Your task to perform on an android device: Go to internet settings Image 0: 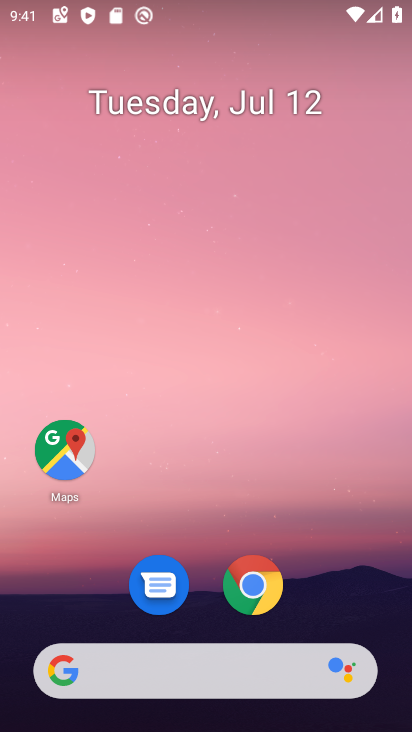
Step 0: drag from (166, 680) to (318, 108)
Your task to perform on an android device: Go to internet settings Image 1: 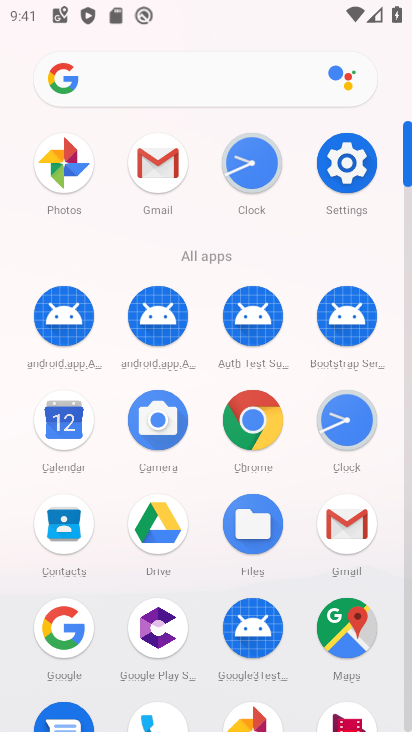
Step 1: click (336, 168)
Your task to perform on an android device: Go to internet settings Image 2: 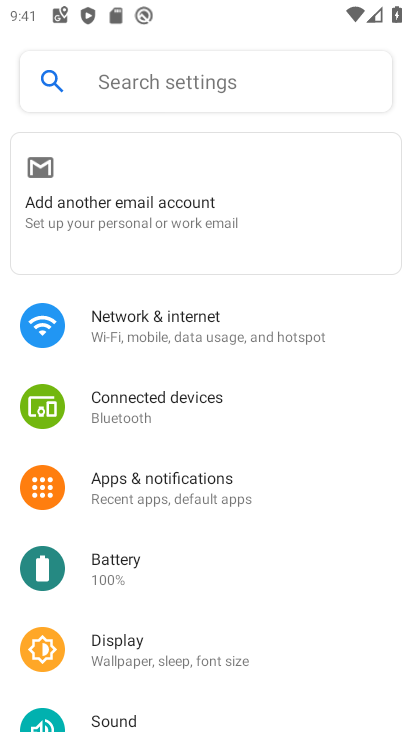
Step 2: click (183, 326)
Your task to perform on an android device: Go to internet settings Image 3: 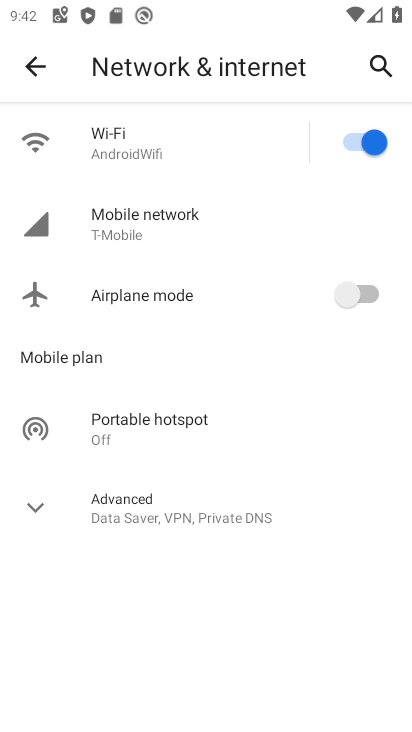
Step 3: task complete